Your task to perform on an android device: Open the calendar and show me this week's events? Image 0: 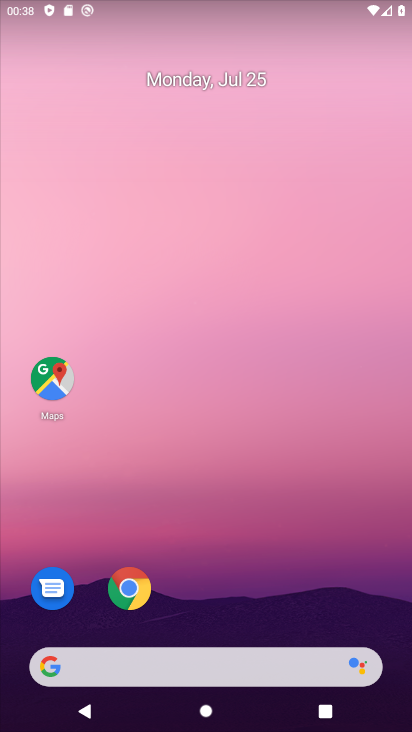
Step 0: drag from (238, 564) to (255, 84)
Your task to perform on an android device: Open the calendar and show me this week's events? Image 1: 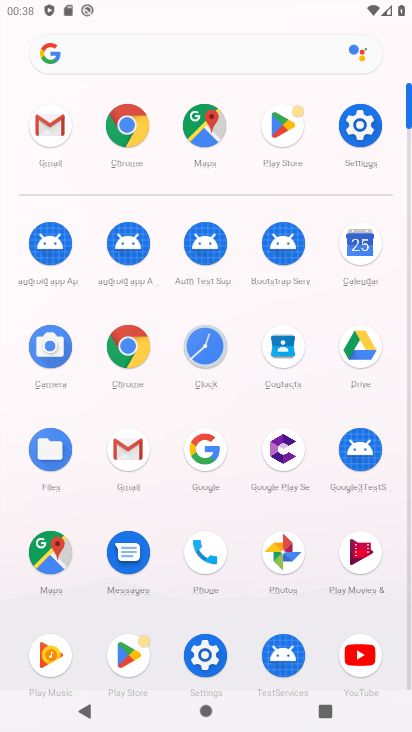
Step 1: click (358, 256)
Your task to perform on an android device: Open the calendar and show me this week's events? Image 2: 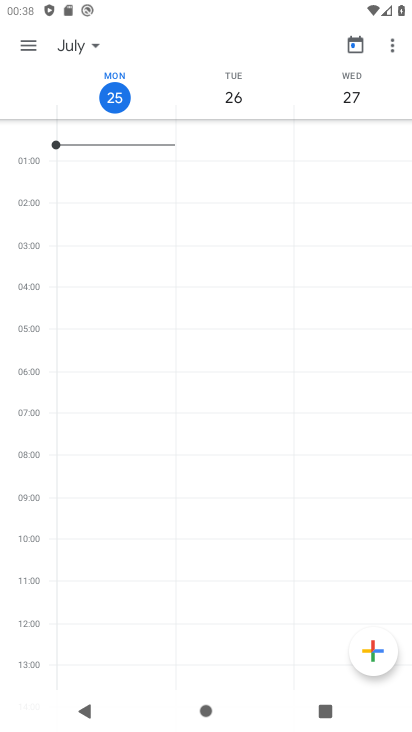
Step 2: click (25, 49)
Your task to perform on an android device: Open the calendar and show me this week's events? Image 3: 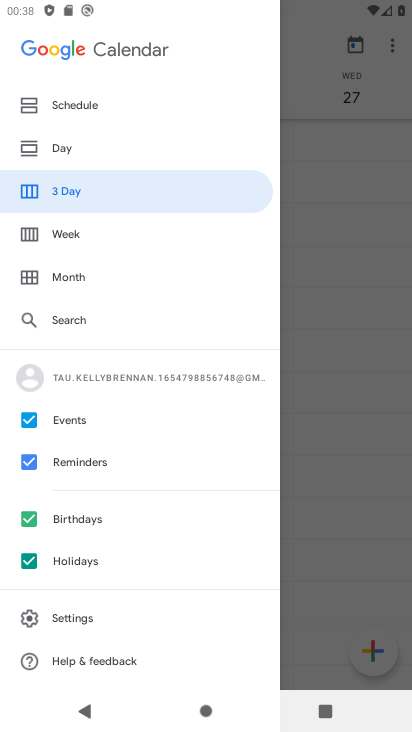
Step 3: click (66, 464)
Your task to perform on an android device: Open the calendar and show me this week's events? Image 4: 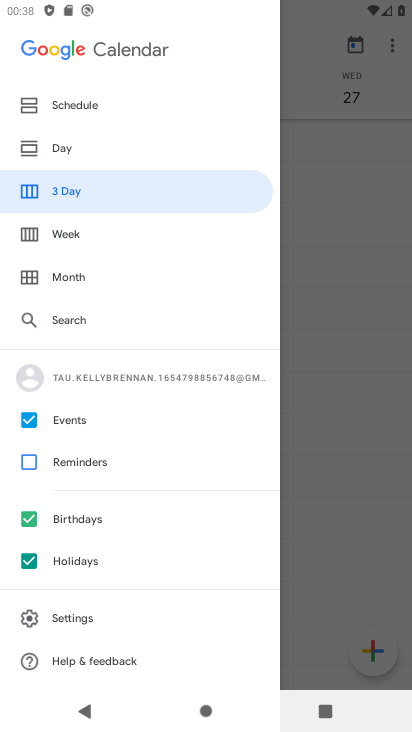
Step 4: click (75, 521)
Your task to perform on an android device: Open the calendar and show me this week's events? Image 5: 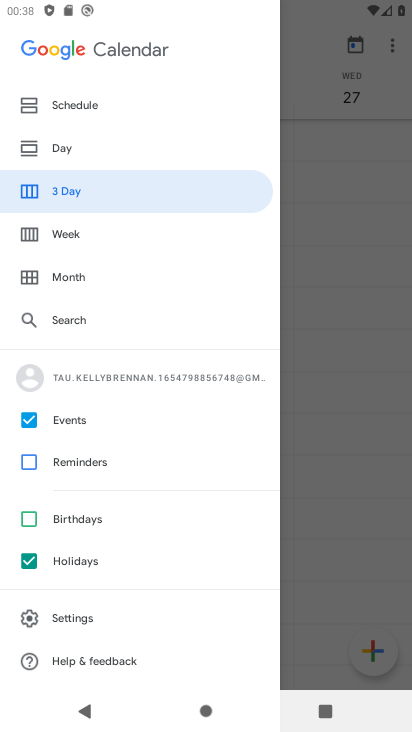
Step 5: click (81, 565)
Your task to perform on an android device: Open the calendar and show me this week's events? Image 6: 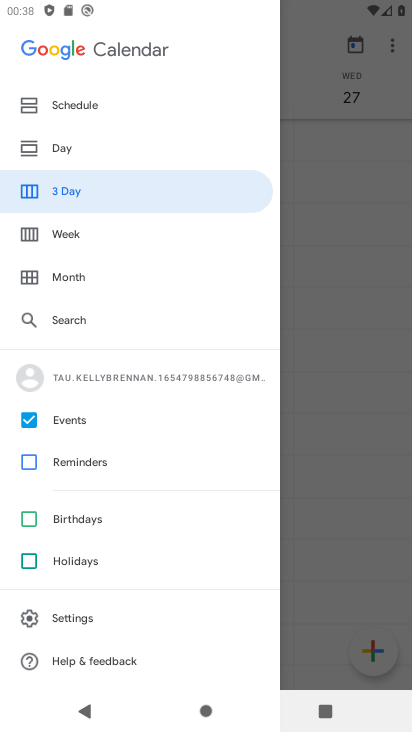
Step 6: click (68, 244)
Your task to perform on an android device: Open the calendar and show me this week's events? Image 7: 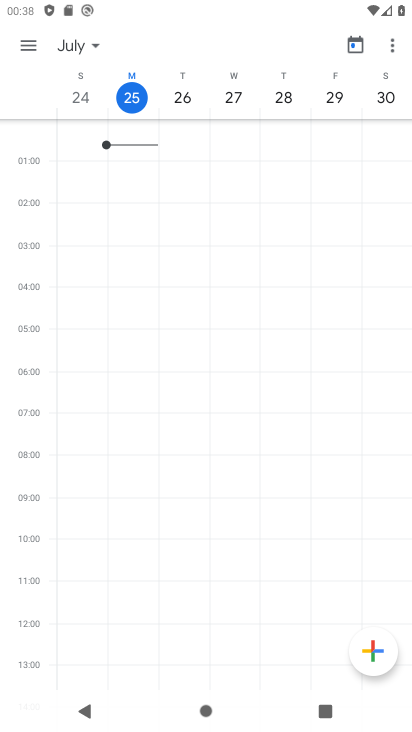
Step 7: task complete